Your task to perform on an android device: Search for vegetarian restaurants on Maps Image 0: 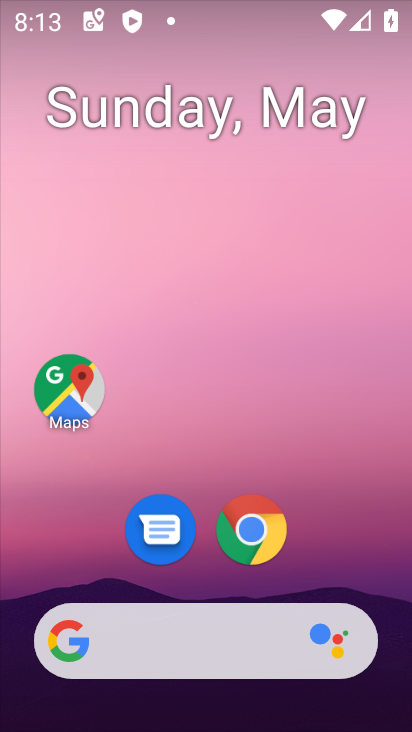
Step 0: click (72, 394)
Your task to perform on an android device: Search for vegetarian restaurants on Maps Image 1: 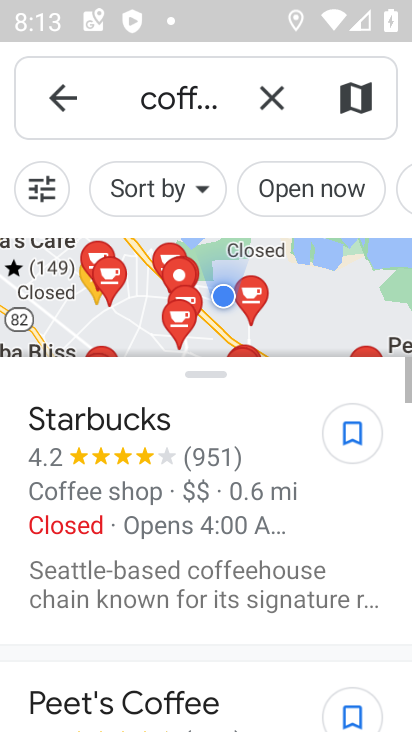
Step 1: click (262, 109)
Your task to perform on an android device: Search for vegetarian restaurants on Maps Image 2: 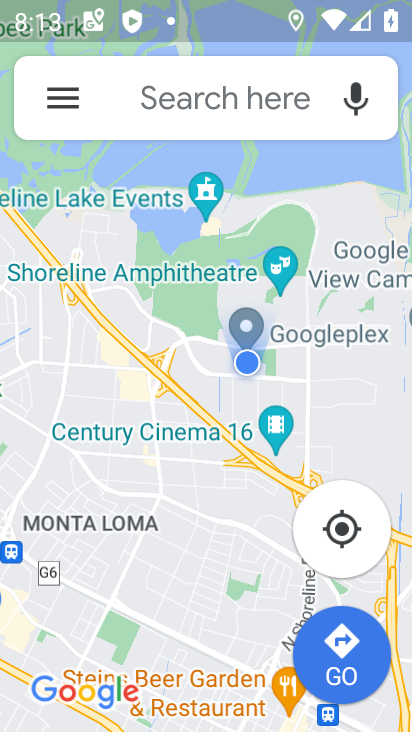
Step 2: click (145, 104)
Your task to perform on an android device: Search for vegetarian restaurants on Maps Image 3: 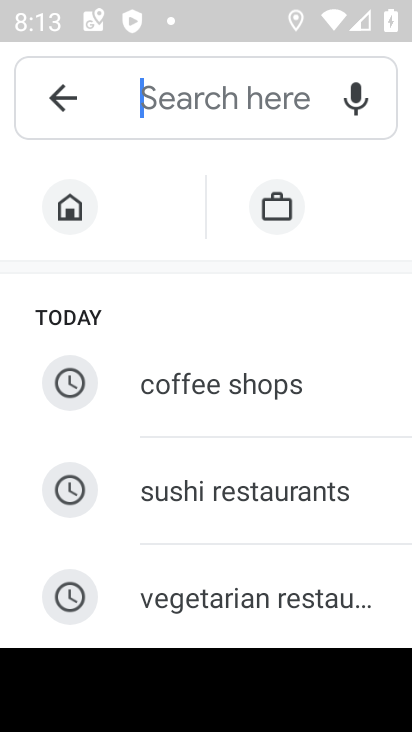
Step 3: type "vegetarian restaurant"
Your task to perform on an android device: Search for vegetarian restaurants on Maps Image 4: 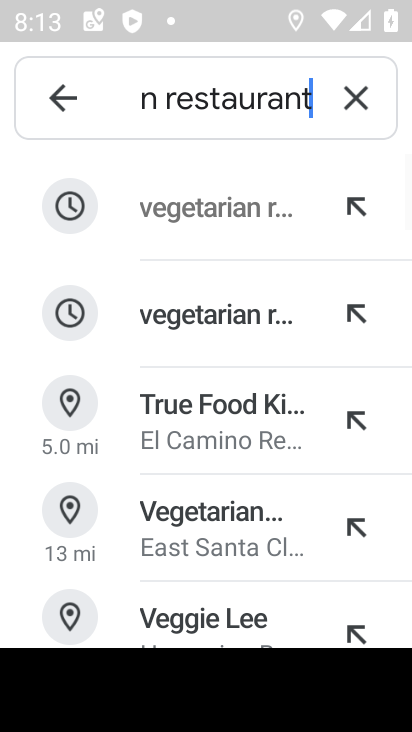
Step 4: click (253, 212)
Your task to perform on an android device: Search for vegetarian restaurants on Maps Image 5: 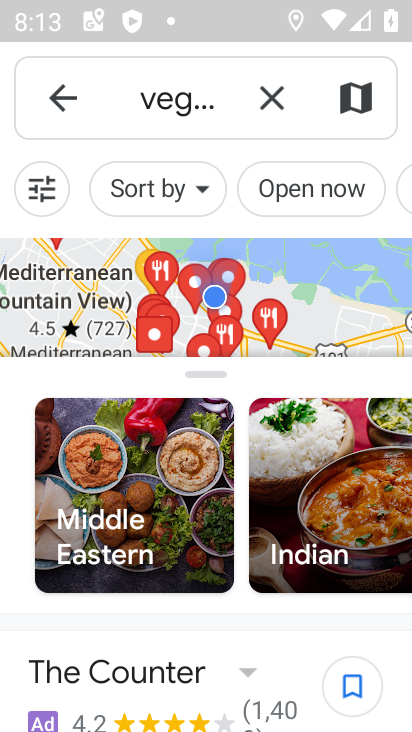
Step 5: task complete